Your task to perform on an android device: Go to sound settings Image 0: 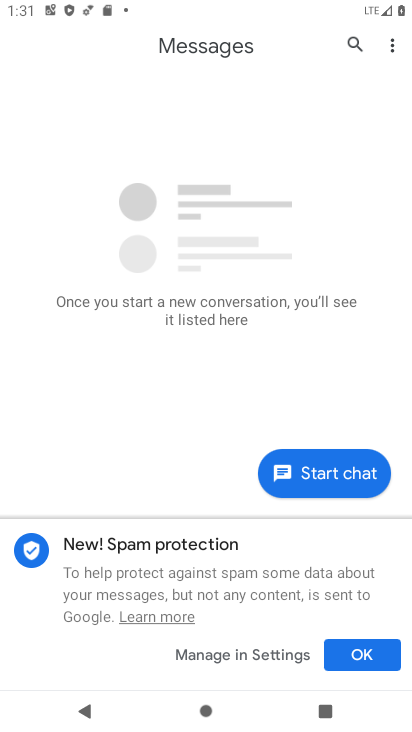
Step 0: press back button
Your task to perform on an android device: Go to sound settings Image 1: 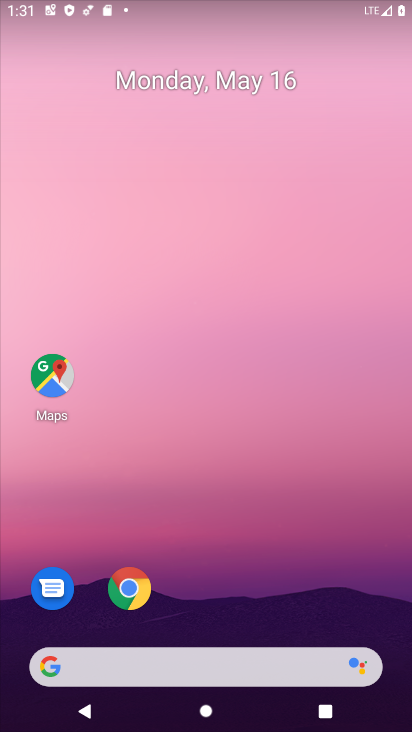
Step 1: drag from (231, 599) to (299, 0)
Your task to perform on an android device: Go to sound settings Image 2: 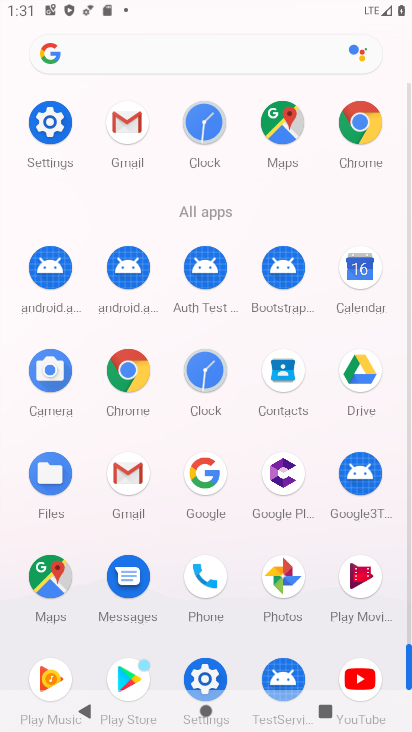
Step 2: click (50, 120)
Your task to perform on an android device: Go to sound settings Image 3: 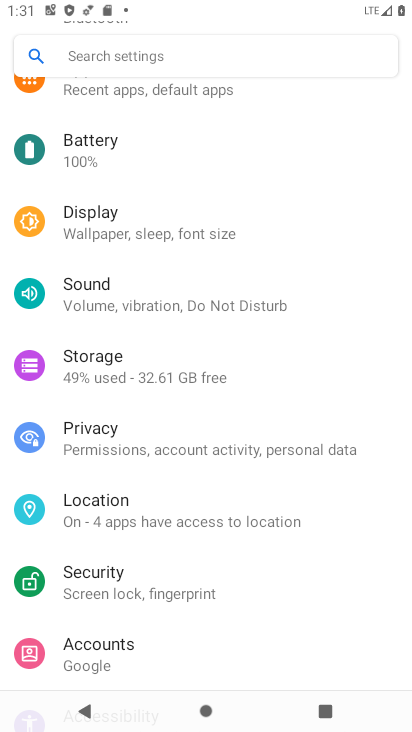
Step 3: drag from (215, 165) to (260, 336)
Your task to perform on an android device: Go to sound settings Image 4: 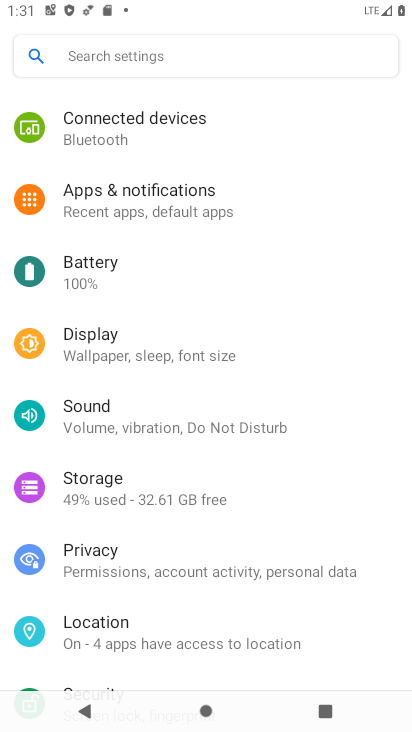
Step 4: drag from (95, 457) to (131, 371)
Your task to perform on an android device: Go to sound settings Image 5: 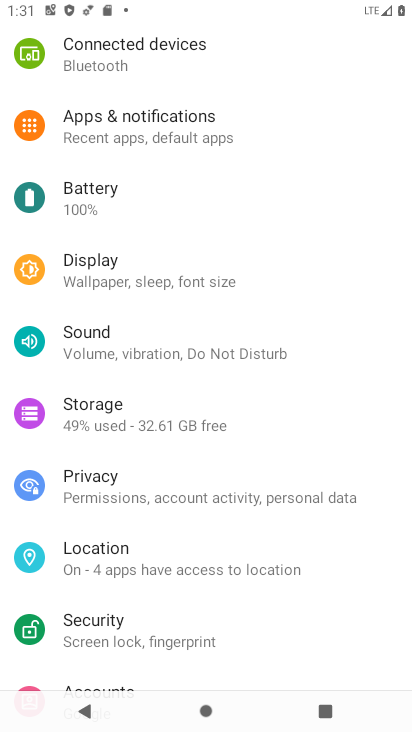
Step 5: drag from (134, 380) to (135, 483)
Your task to perform on an android device: Go to sound settings Image 6: 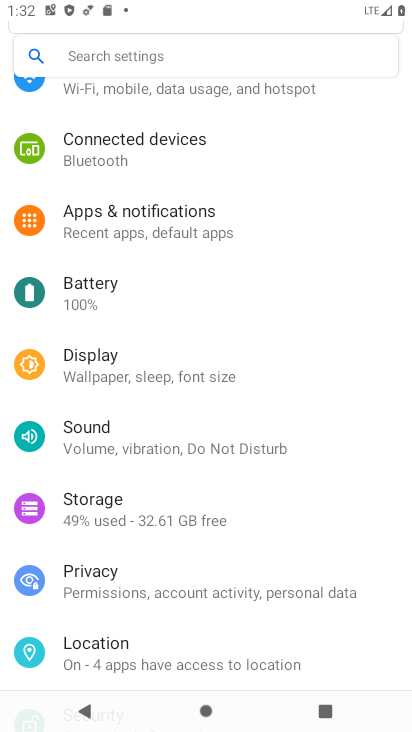
Step 6: click (119, 445)
Your task to perform on an android device: Go to sound settings Image 7: 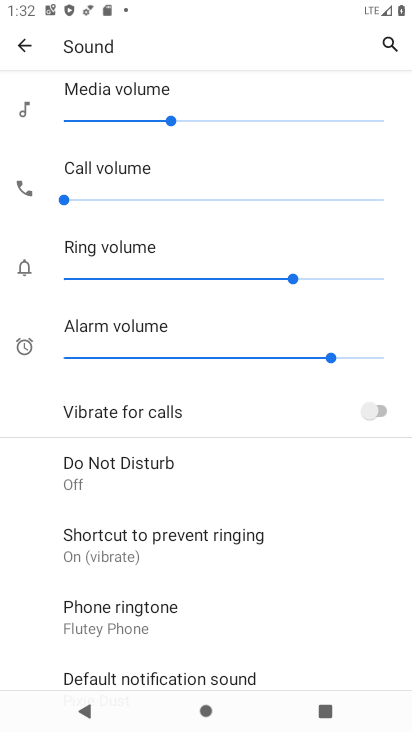
Step 7: task complete